Your task to perform on an android device: See recent photos Image 0: 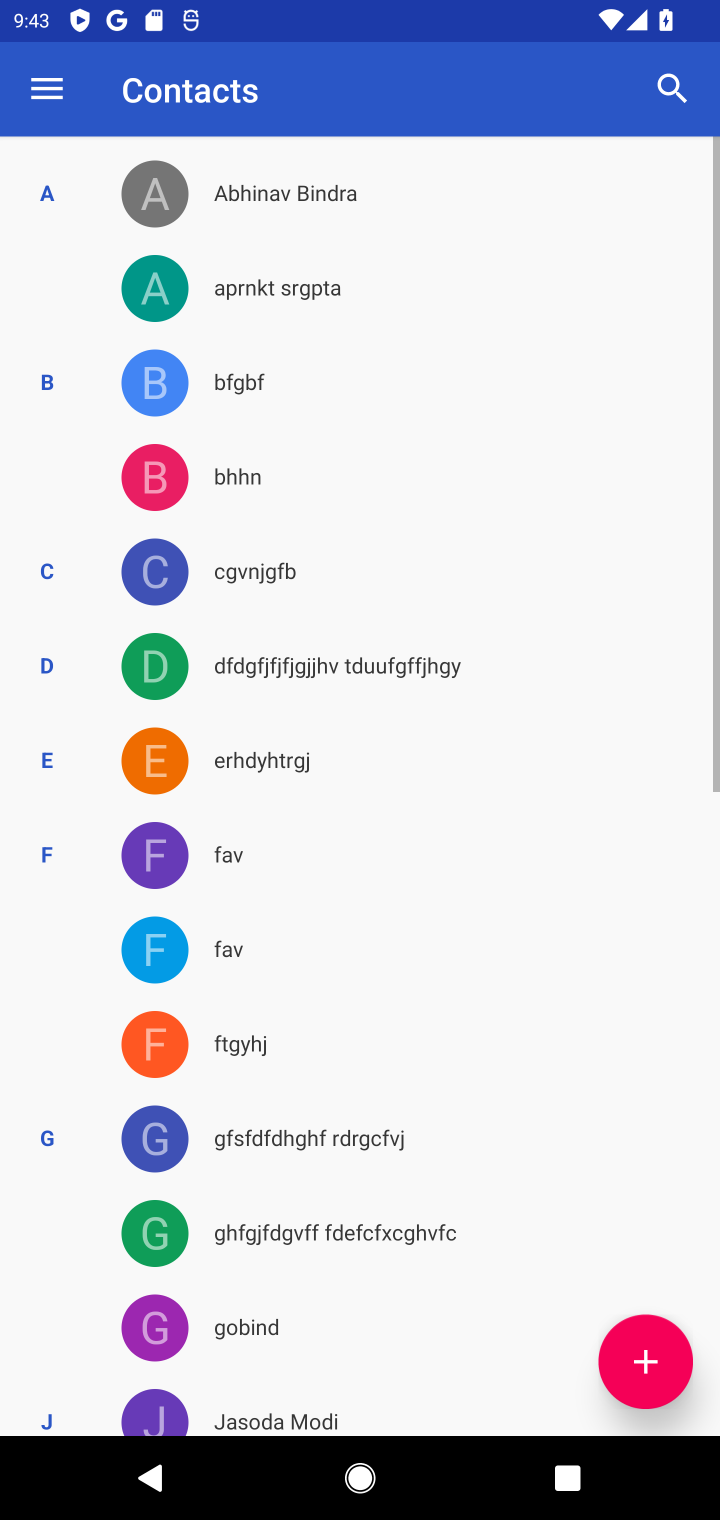
Step 0: press back button
Your task to perform on an android device: See recent photos Image 1: 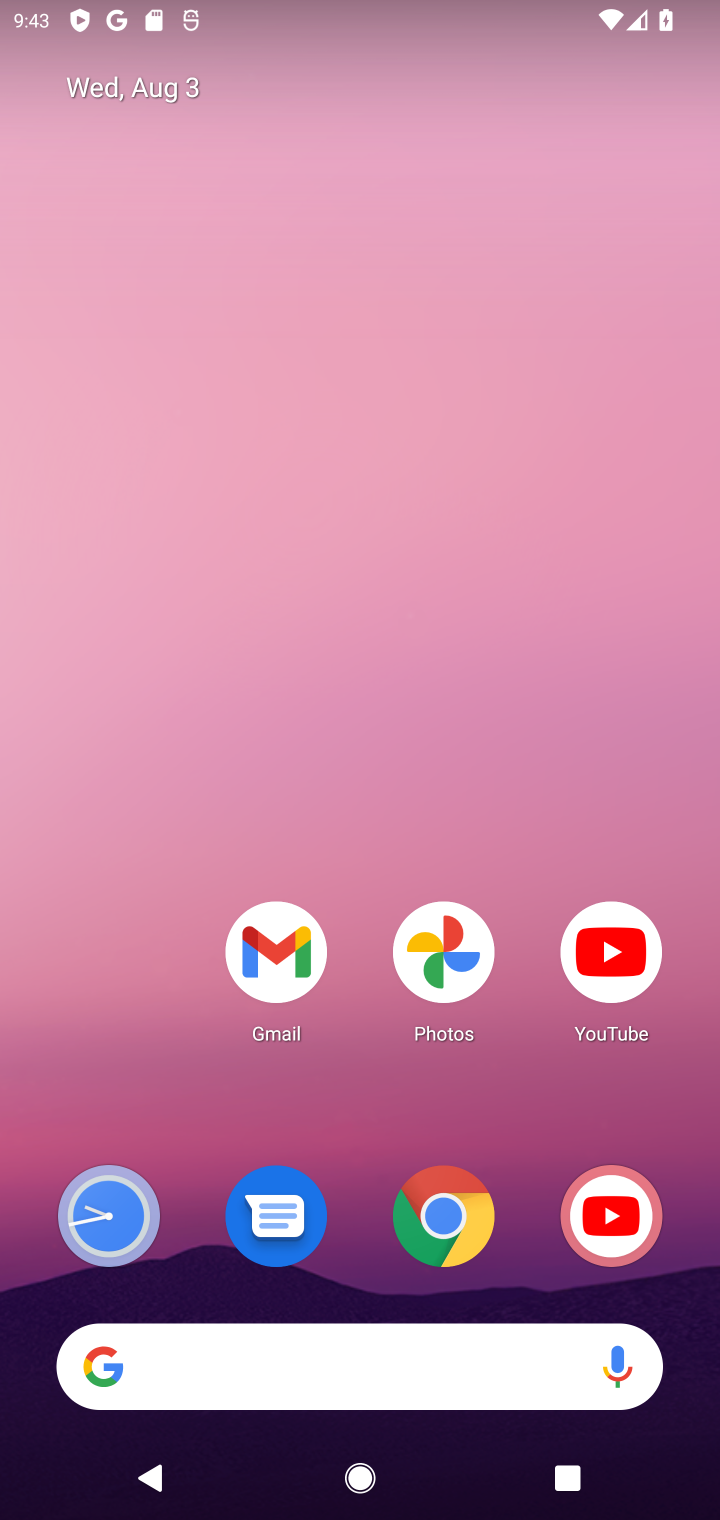
Step 1: click (434, 942)
Your task to perform on an android device: See recent photos Image 2: 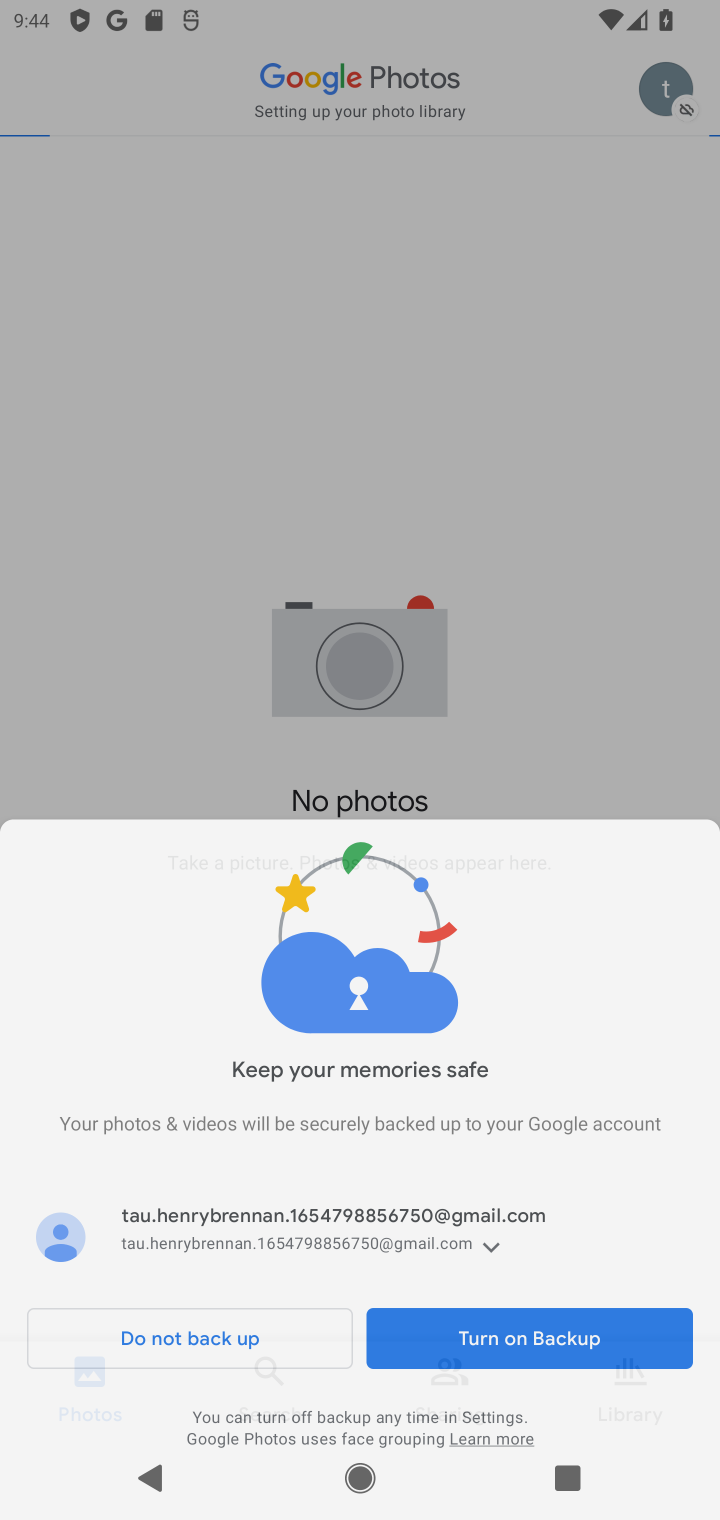
Step 2: click (84, 1378)
Your task to perform on an android device: See recent photos Image 3: 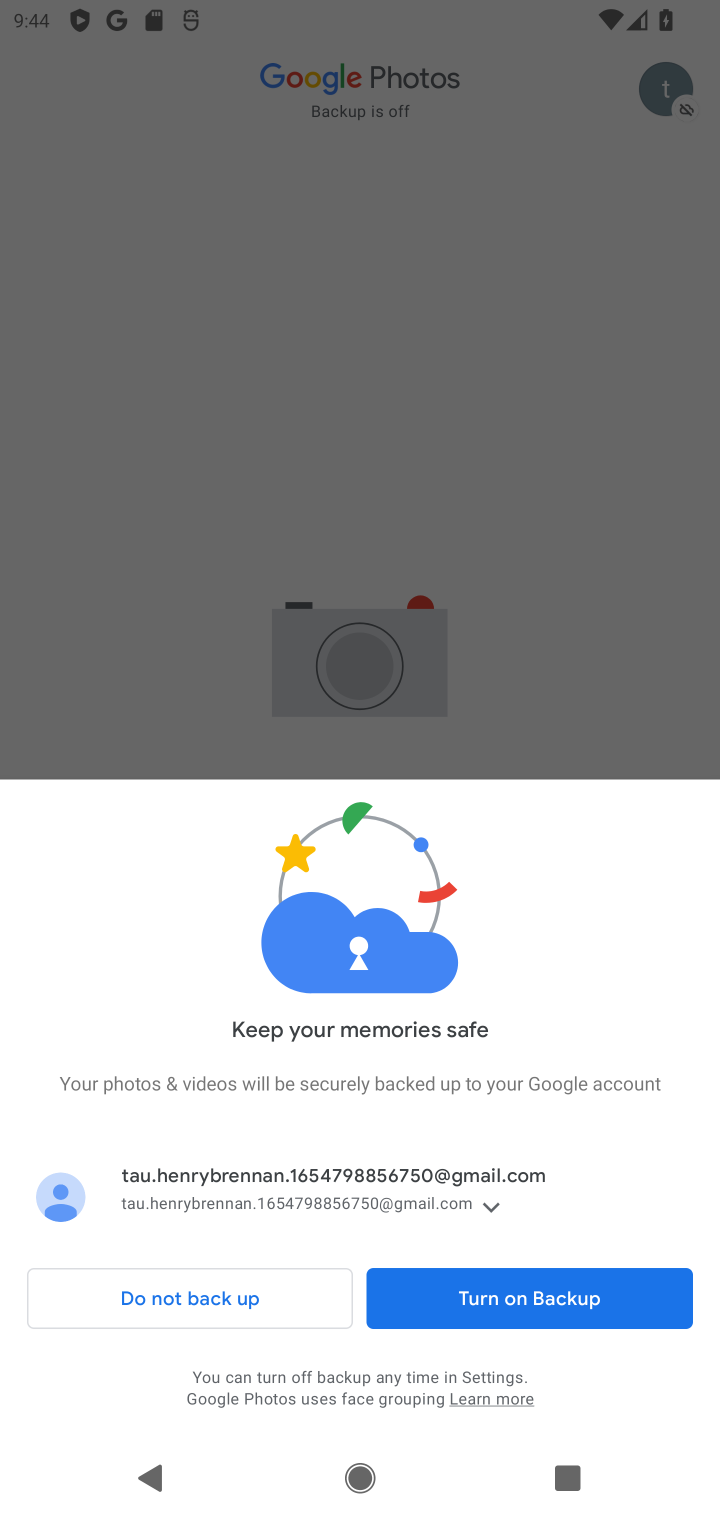
Step 3: click (197, 1293)
Your task to perform on an android device: See recent photos Image 4: 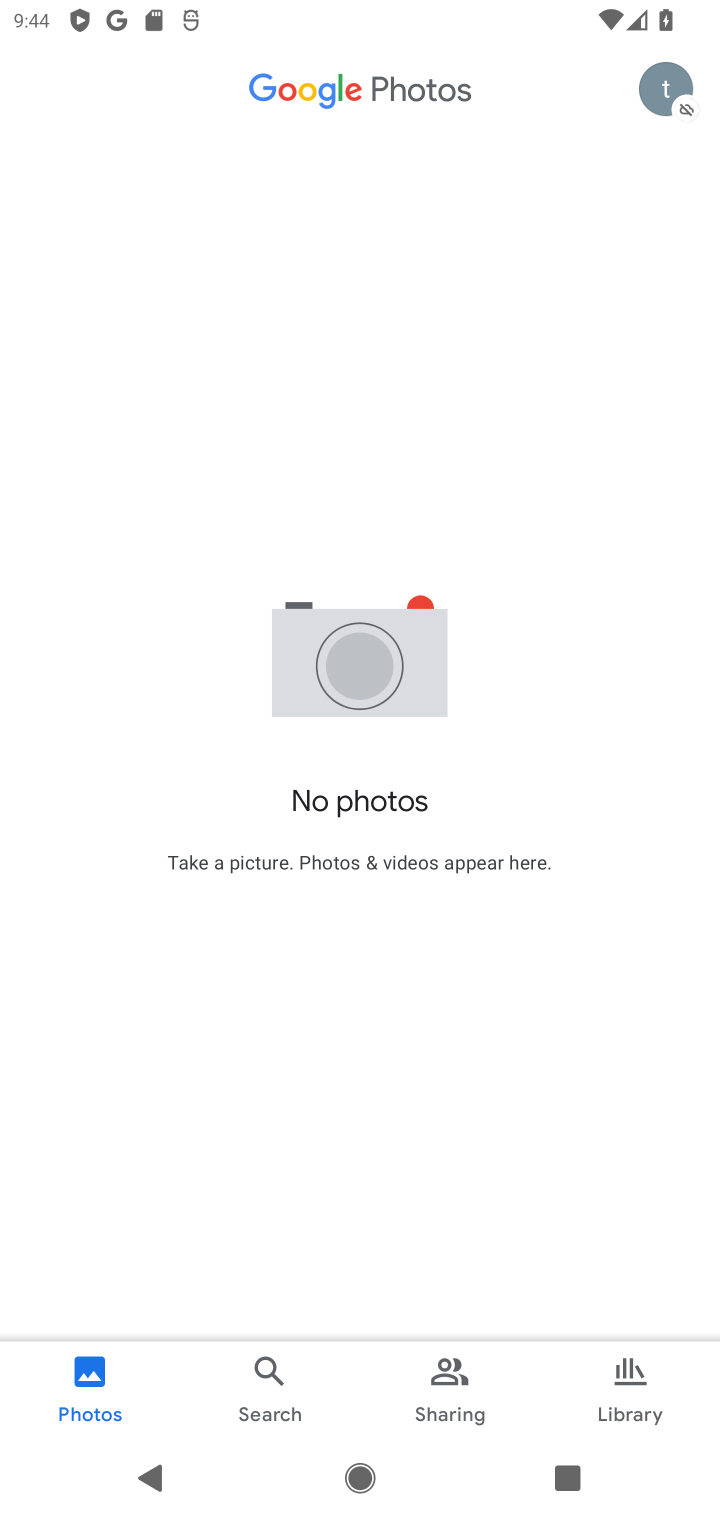
Step 4: click (91, 1377)
Your task to perform on an android device: See recent photos Image 5: 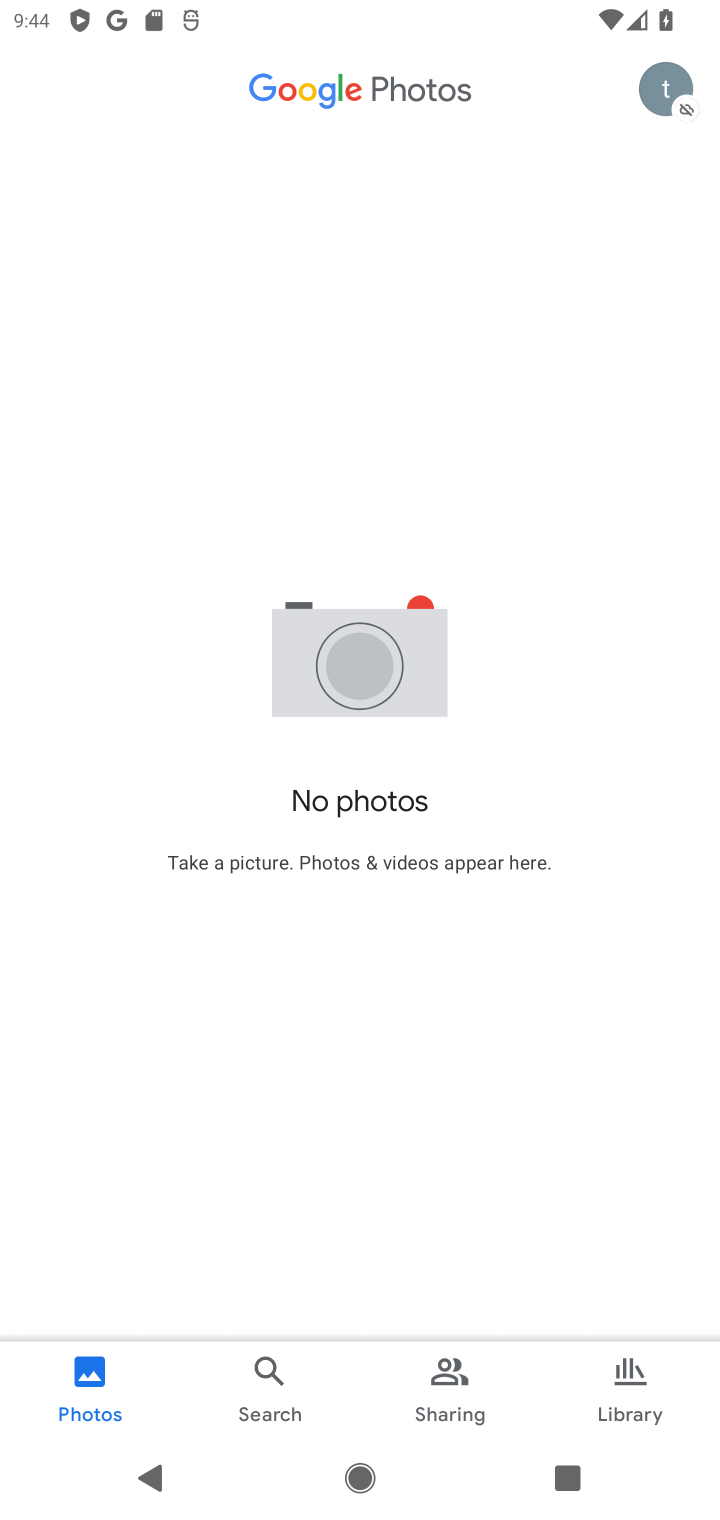
Step 5: task complete